Your task to perform on an android device: turn on wifi Image 0: 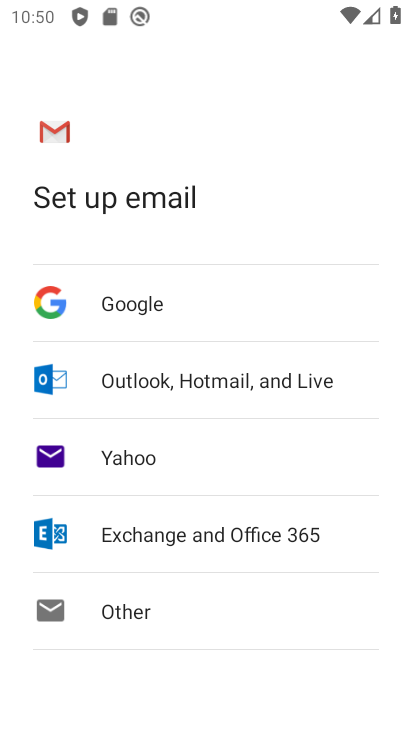
Step 0: drag from (266, 543) to (317, 198)
Your task to perform on an android device: turn on wifi Image 1: 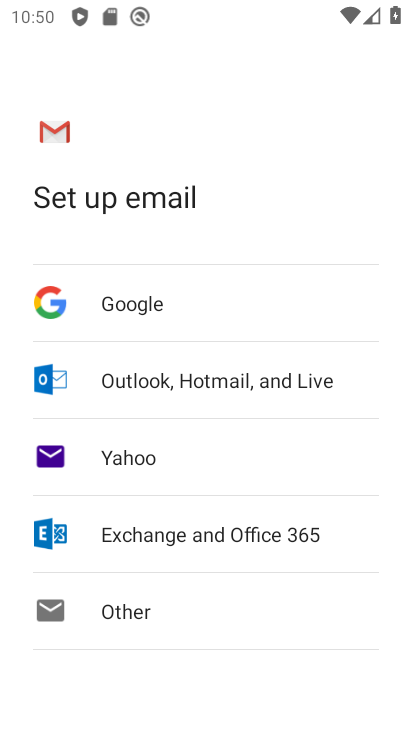
Step 1: press home button
Your task to perform on an android device: turn on wifi Image 2: 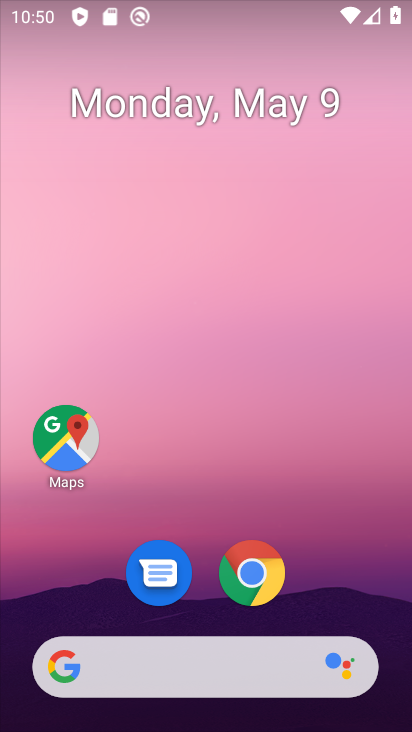
Step 2: drag from (200, 592) to (259, 223)
Your task to perform on an android device: turn on wifi Image 3: 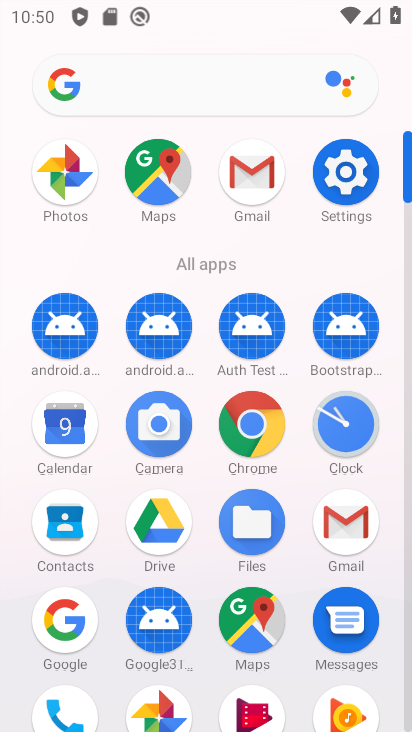
Step 3: click (366, 157)
Your task to perform on an android device: turn on wifi Image 4: 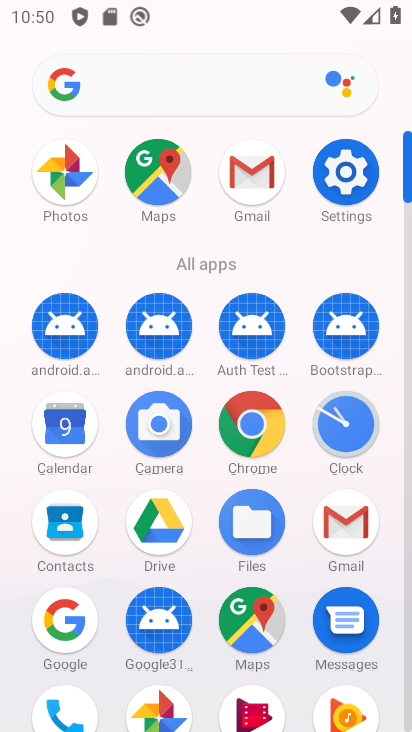
Step 4: click (366, 157)
Your task to perform on an android device: turn on wifi Image 5: 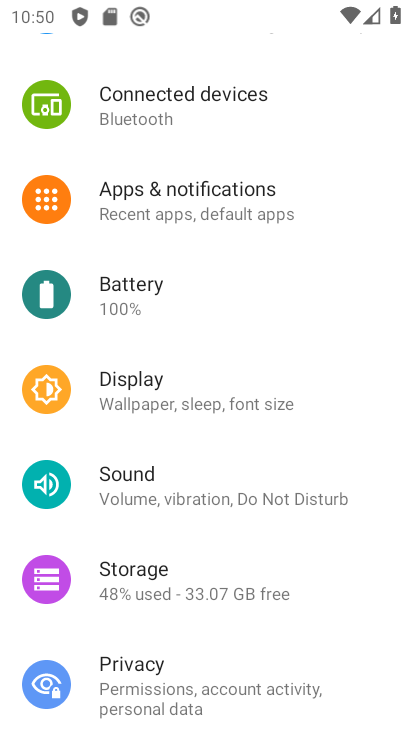
Step 5: click (181, 91)
Your task to perform on an android device: turn on wifi Image 6: 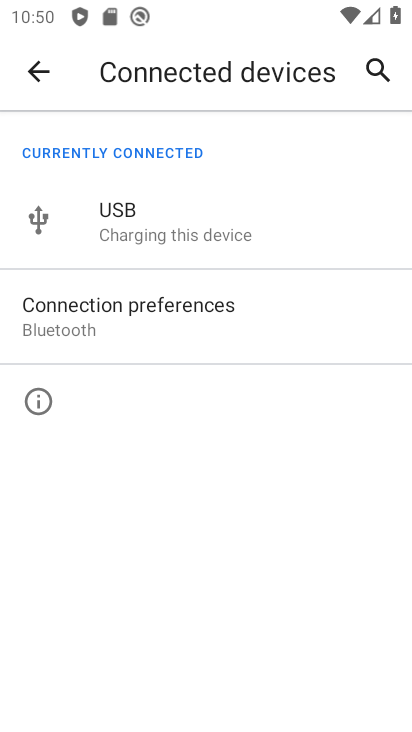
Step 6: task complete